Your task to perform on an android device: turn off location history Image 0: 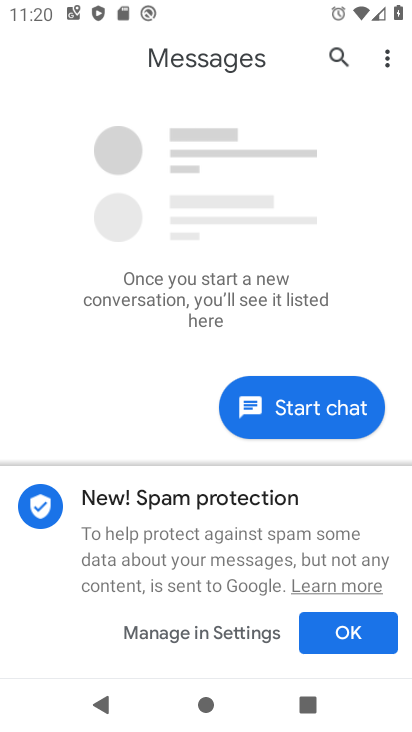
Step 0: press back button
Your task to perform on an android device: turn off location history Image 1: 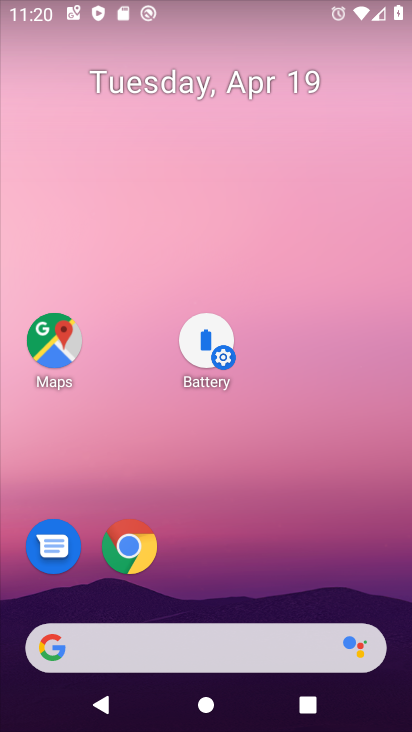
Step 1: drag from (252, 361) to (289, 51)
Your task to perform on an android device: turn off location history Image 2: 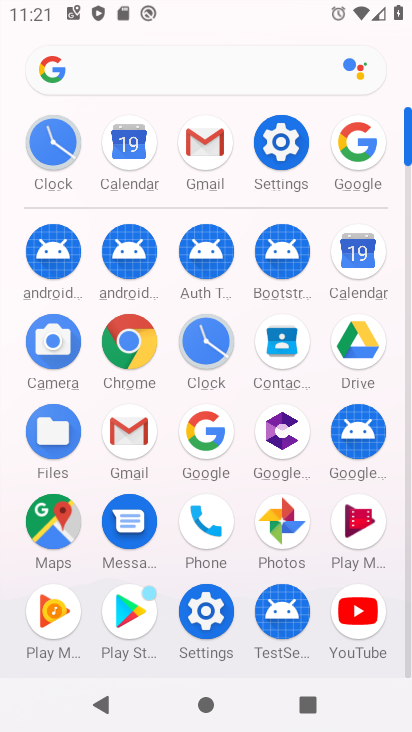
Step 2: click (277, 145)
Your task to perform on an android device: turn off location history Image 3: 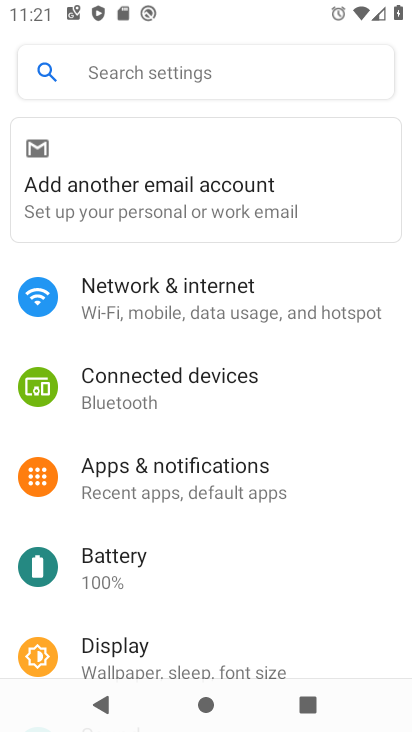
Step 3: drag from (179, 642) to (271, 61)
Your task to perform on an android device: turn off location history Image 4: 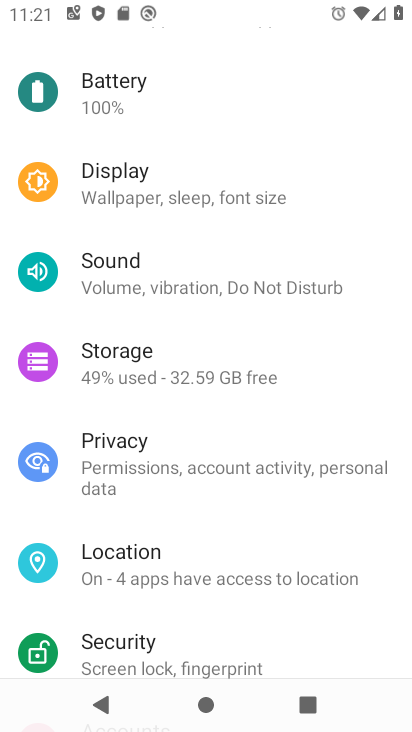
Step 4: click (195, 573)
Your task to perform on an android device: turn off location history Image 5: 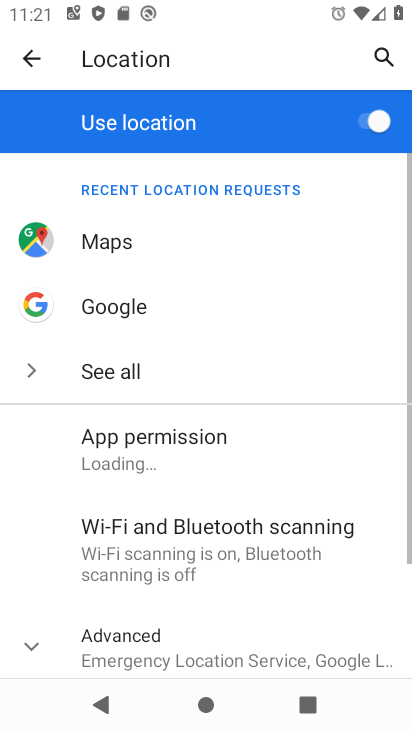
Step 5: drag from (199, 622) to (263, 147)
Your task to perform on an android device: turn off location history Image 6: 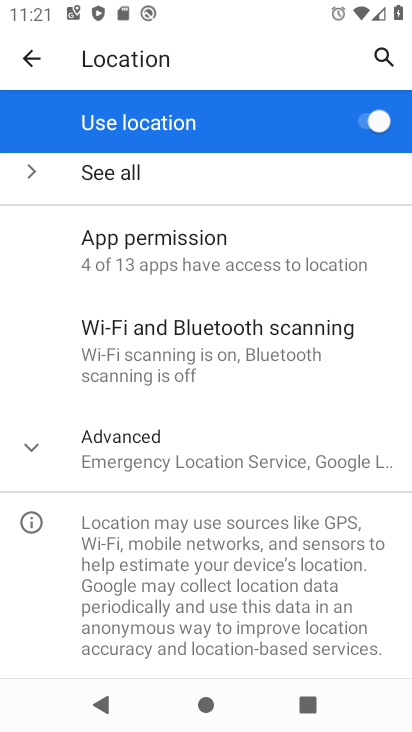
Step 6: click (198, 466)
Your task to perform on an android device: turn off location history Image 7: 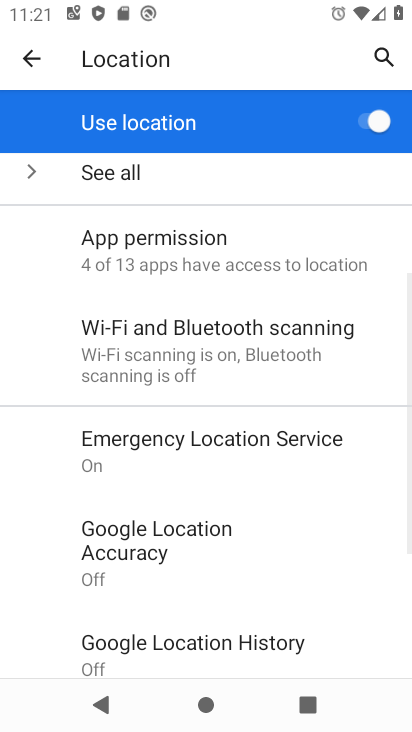
Step 7: click (201, 646)
Your task to perform on an android device: turn off location history Image 8: 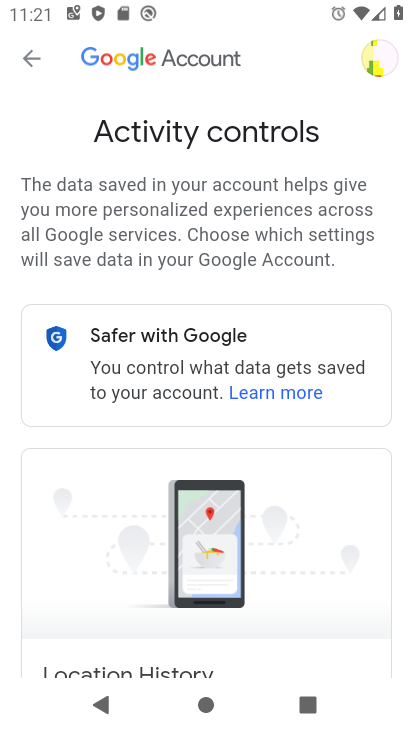
Step 8: drag from (204, 540) to (258, 82)
Your task to perform on an android device: turn off location history Image 9: 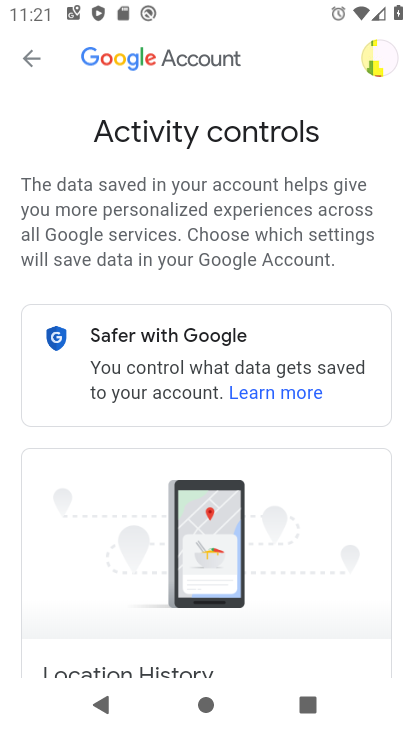
Step 9: drag from (181, 614) to (216, 251)
Your task to perform on an android device: turn off location history Image 10: 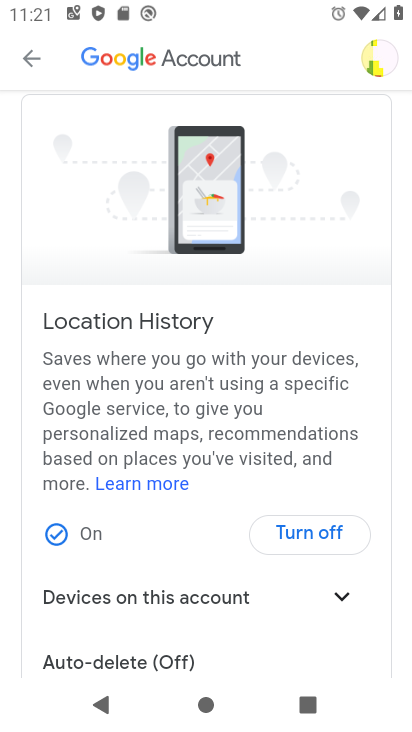
Step 10: click (306, 533)
Your task to perform on an android device: turn off location history Image 11: 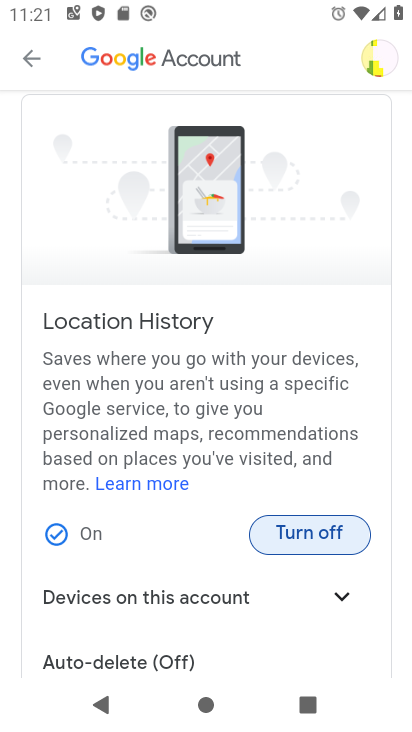
Step 11: click (319, 536)
Your task to perform on an android device: turn off location history Image 12: 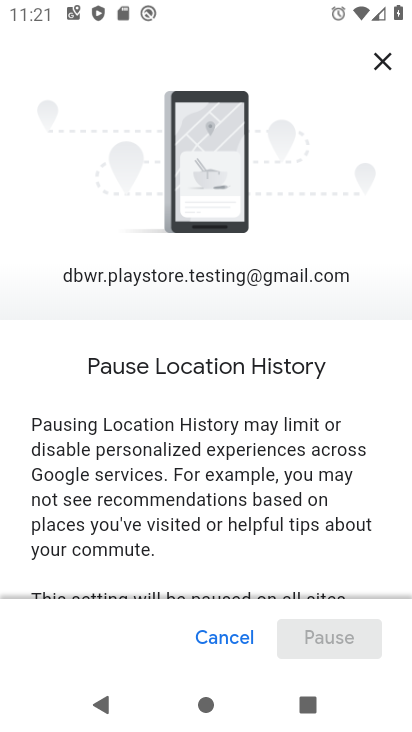
Step 12: drag from (223, 538) to (277, 66)
Your task to perform on an android device: turn off location history Image 13: 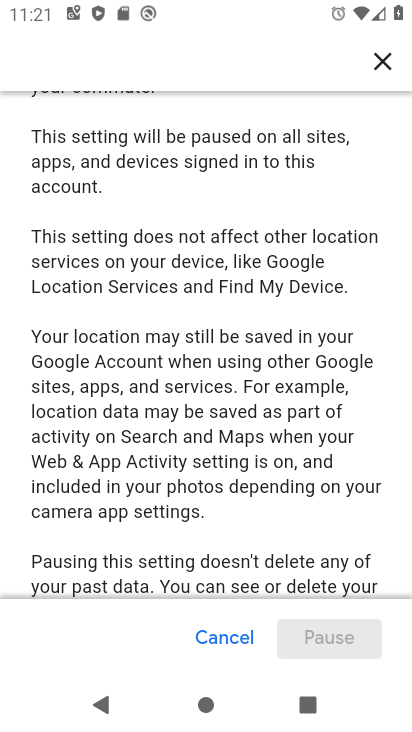
Step 13: drag from (165, 547) to (282, 104)
Your task to perform on an android device: turn off location history Image 14: 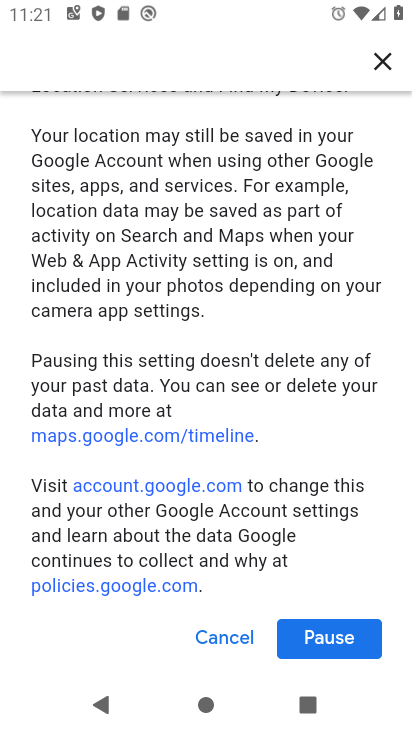
Step 14: drag from (212, 523) to (271, 181)
Your task to perform on an android device: turn off location history Image 15: 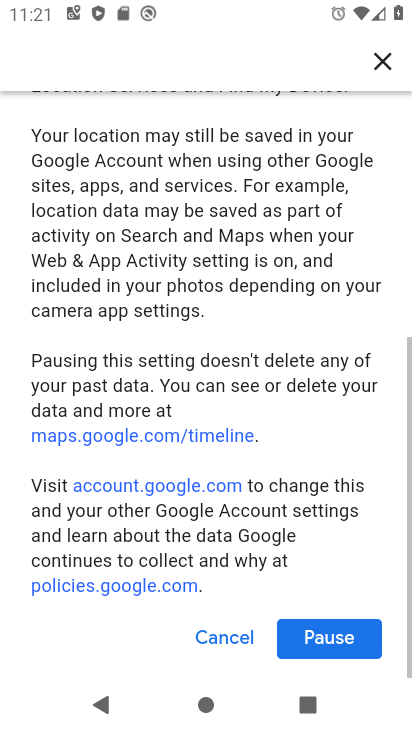
Step 15: click (339, 637)
Your task to perform on an android device: turn off location history Image 16: 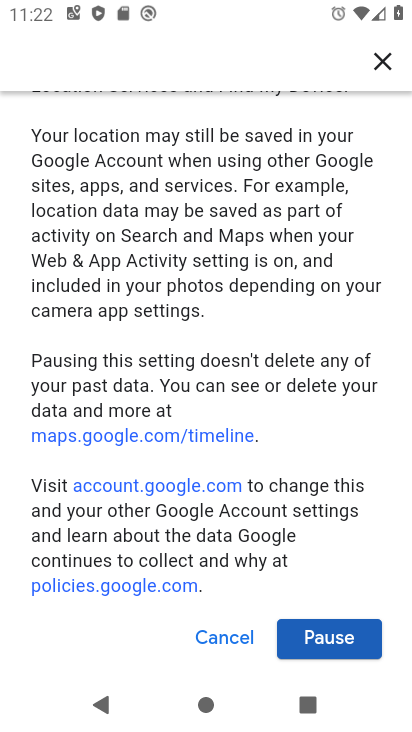
Step 16: click (345, 634)
Your task to perform on an android device: turn off location history Image 17: 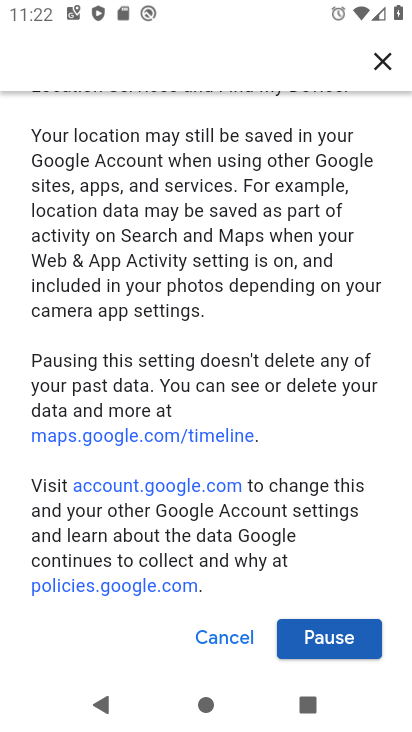
Step 17: click (322, 634)
Your task to perform on an android device: turn off location history Image 18: 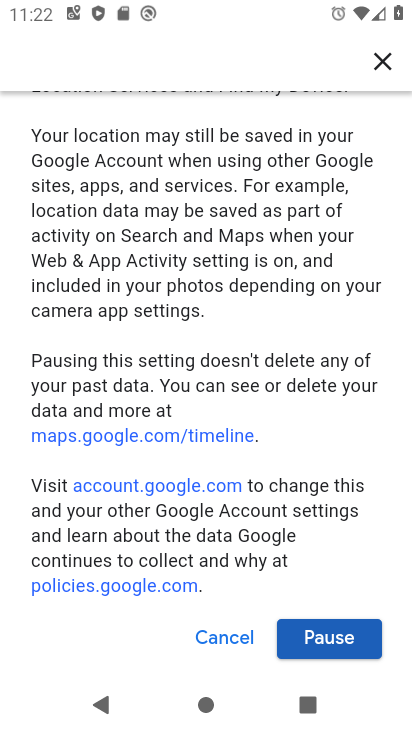
Step 18: drag from (222, 495) to (273, 127)
Your task to perform on an android device: turn off location history Image 19: 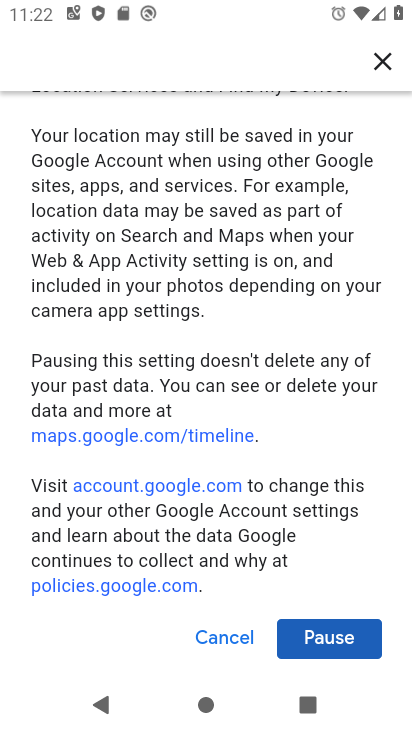
Step 19: click (323, 642)
Your task to perform on an android device: turn off location history Image 20: 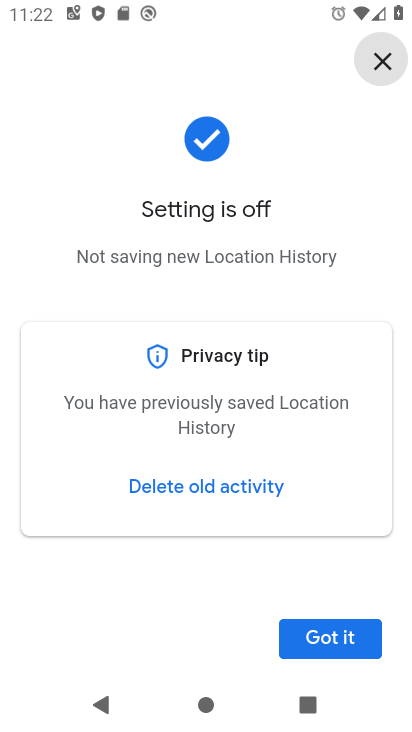
Step 20: task complete